Your task to perform on an android device: Is it going to rain today? Image 0: 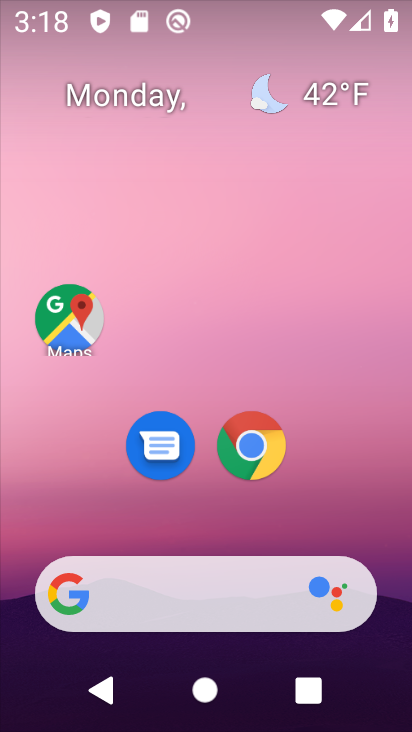
Step 0: drag from (12, 427) to (188, 64)
Your task to perform on an android device: Is it going to rain today? Image 1: 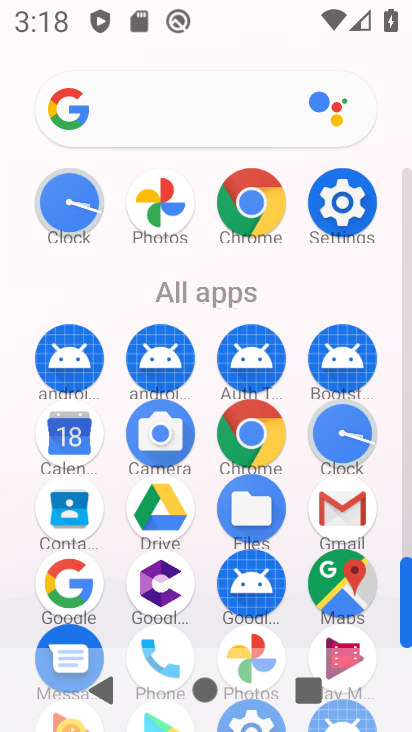
Step 1: press home button
Your task to perform on an android device: Is it going to rain today? Image 2: 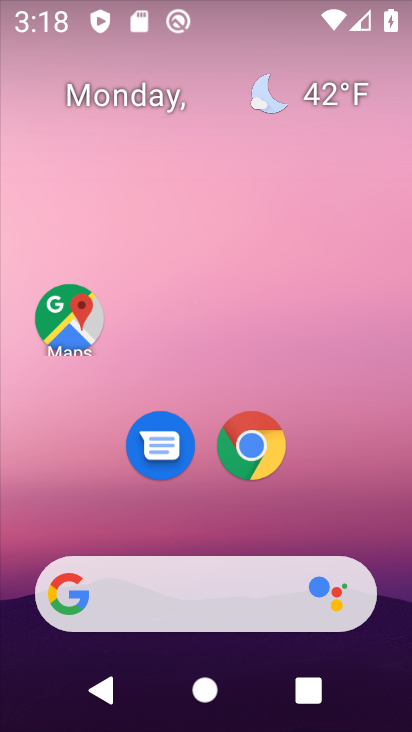
Step 2: click (332, 108)
Your task to perform on an android device: Is it going to rain today? Image 3: 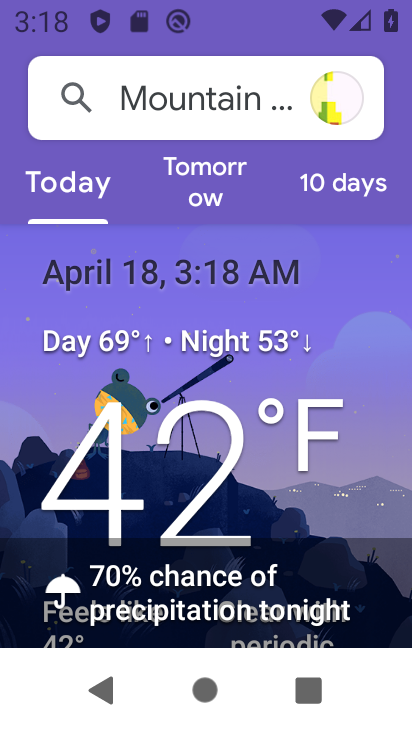
Step 3: task complete